Your task to perform on an android device: check the backup settings in the google photos Image 0: 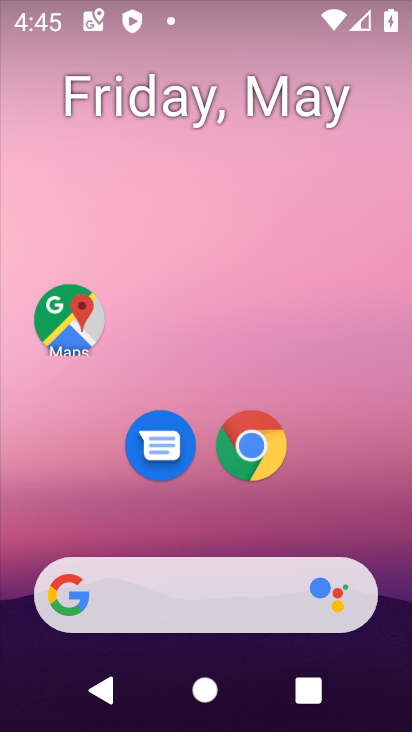
Step 0: drag from (335, 422) to (363, 134)
Your task to perform on an android device: check the backup settings in the google photos Image 1: 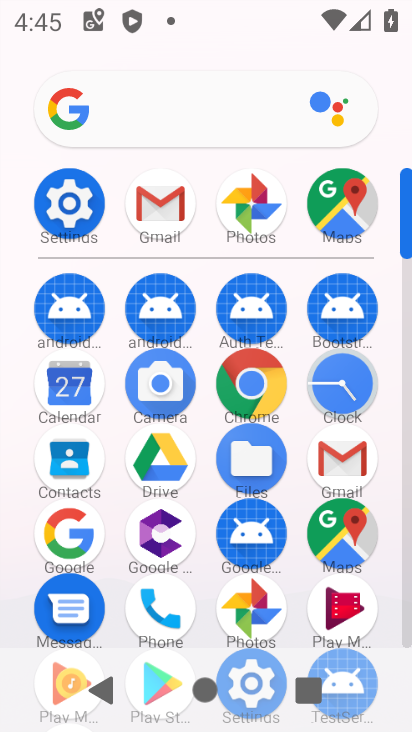
Step 1: click (245, 213)
Your task to perform on an android device: check the backup settings in the google photos Image 2: 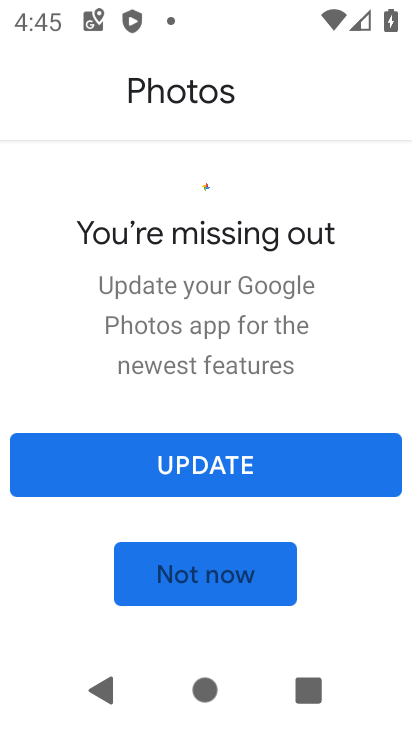
Step 2: click (210, 472)
Your task to perform on an android device: check the backup settings in the google photos Image 3: 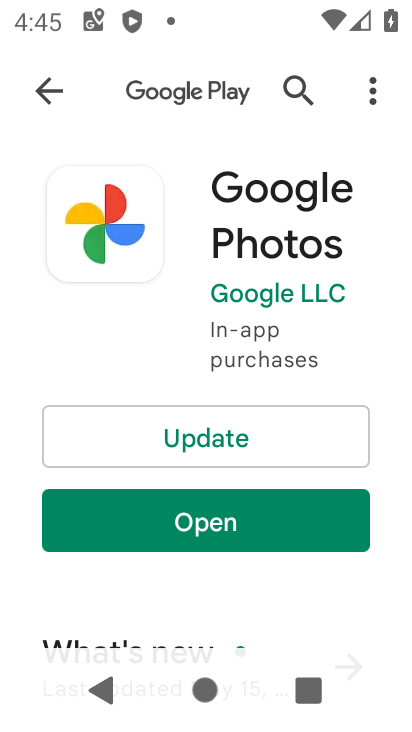
Step 3: click (204, 425)
Your task to perform on an android device: check the backup settings in the google photos Image 4: 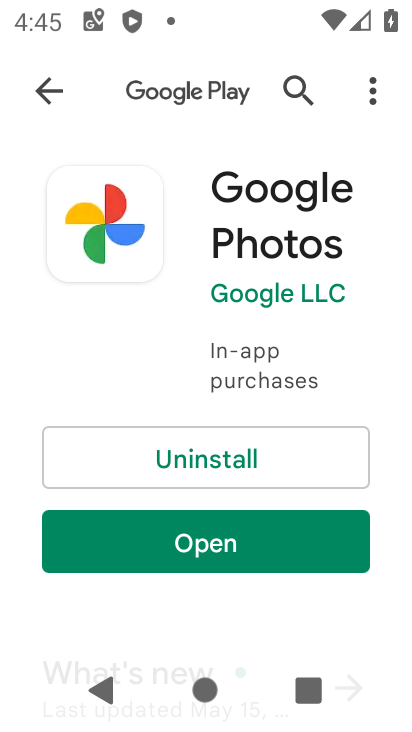
Step 4: click (190, 542)
Your task to perform on an android device: check the backup settings in the google photos Image 5: 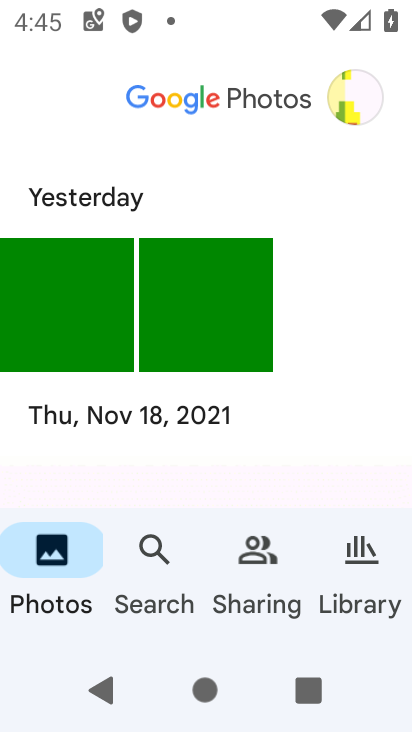
Step 5: click (345, 96)
Your task to perform on an android device: check the backup settings in the google photos Image 6: 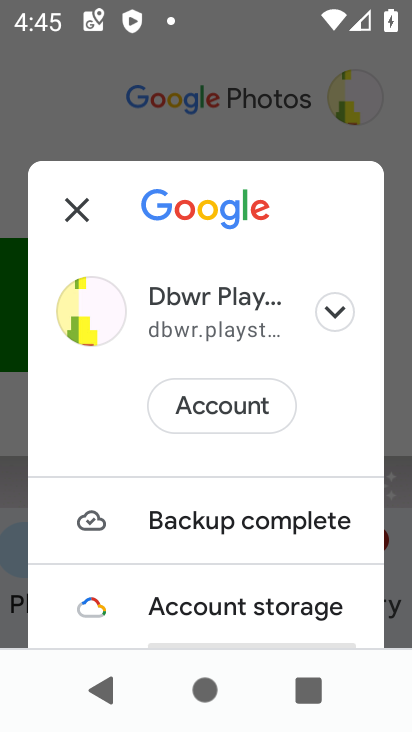
Step 6: click (233, 524)
Your task to perform on an android device: check the backup settings in the google photos Image 7: 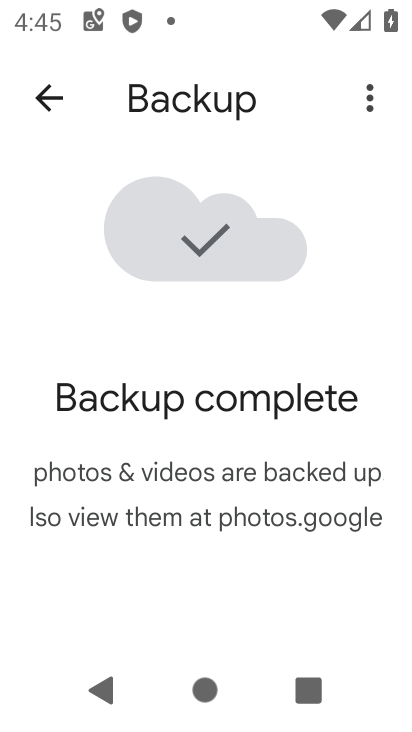
Step 7: drag from (270, 509) to (223, 159)
Your task to perform on an android device: check the backup settings in the google photos Image 8: 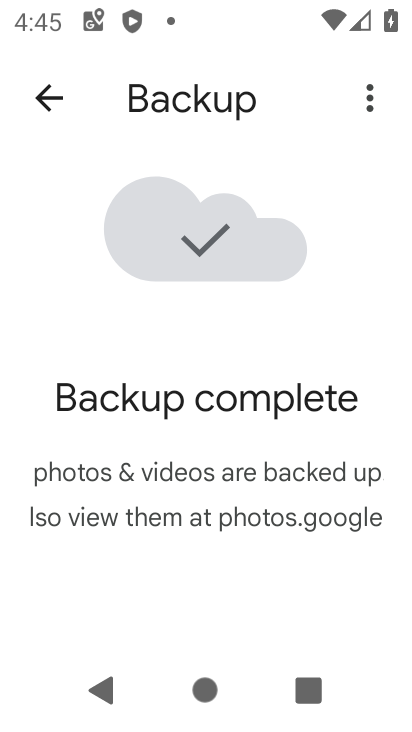
Step 8: click (378, 98)
Your task to perform on an android device: check the backup settings in the google photos Image 9: 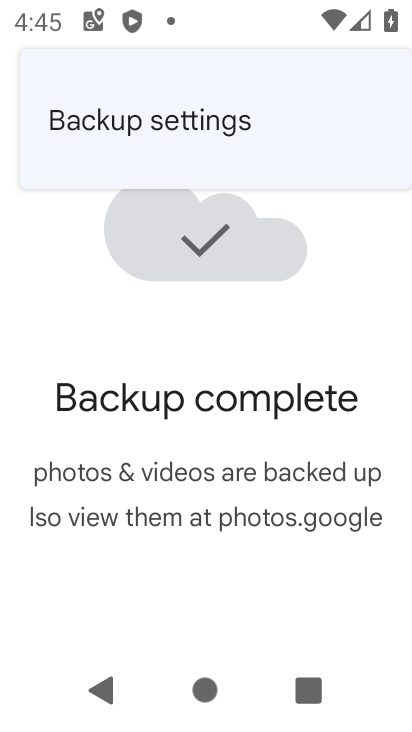
Step 9: click (223, 116)
Your task to perform on an android device: check the backup settings in the google photos Image 10: 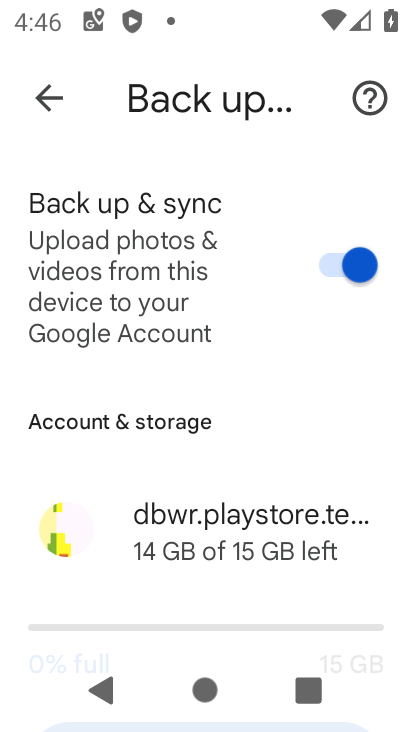
Step 10: task complete